Your task to perform on an android device: change the upload size in google photos Image 0: 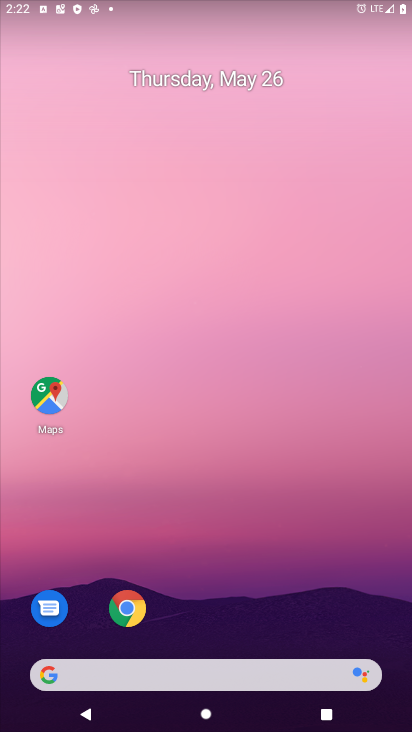
Step 0: drag from (357, 624) to (309, 75)
Your task to perform on an android device: change the upload size in google photos Image 1: 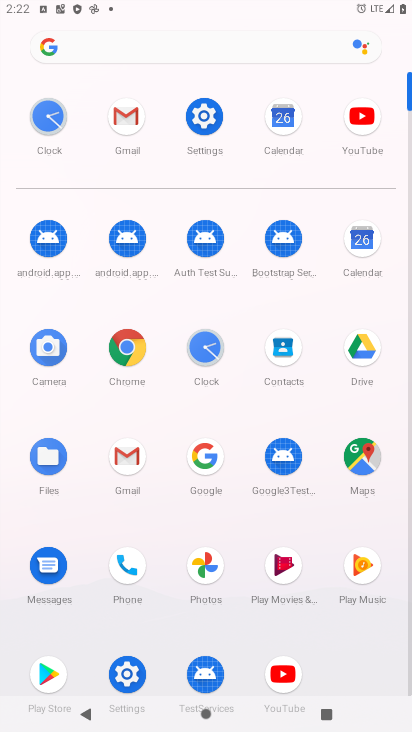
Step 1: click (208, 562)
Your task to perform on an android device: change the upload size in google photos Image 2: 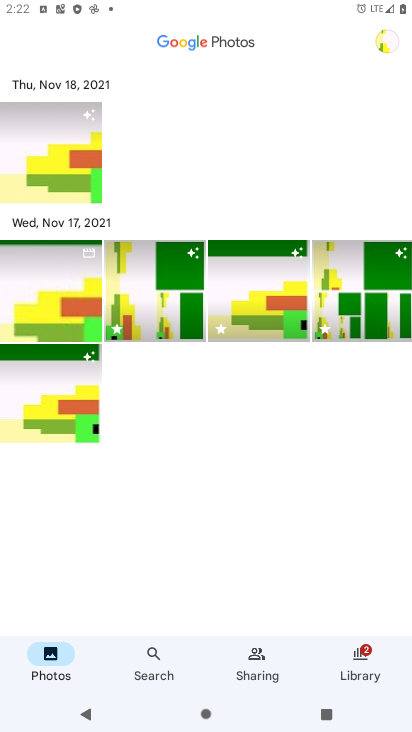
Step 2: click (384, 49)
Your task to perform on an android device: change the upload size in google photos Image 3: 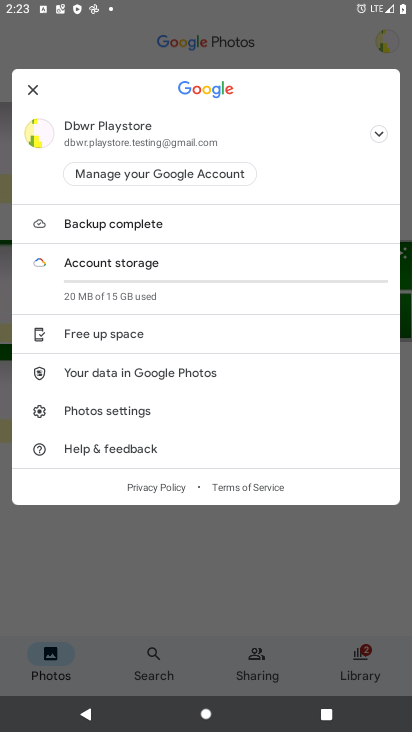
Step 3: click (99, 402)
Your task to perform on an android device: change the upload size in google photos Image 4: 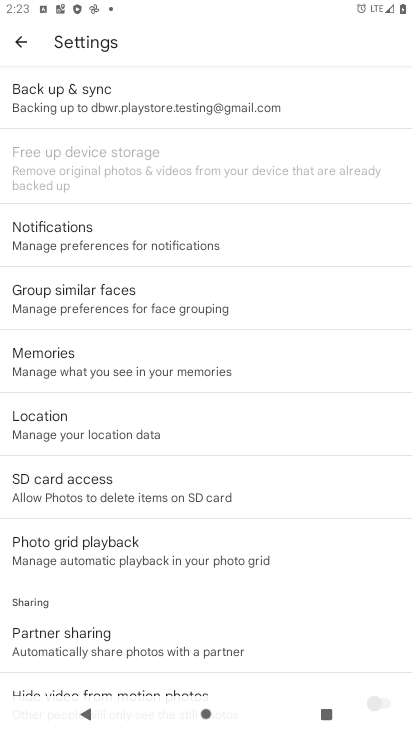
Step 4: click (99, 100)
Your task to perform on an android device: change the upload size in google photos Image 5: 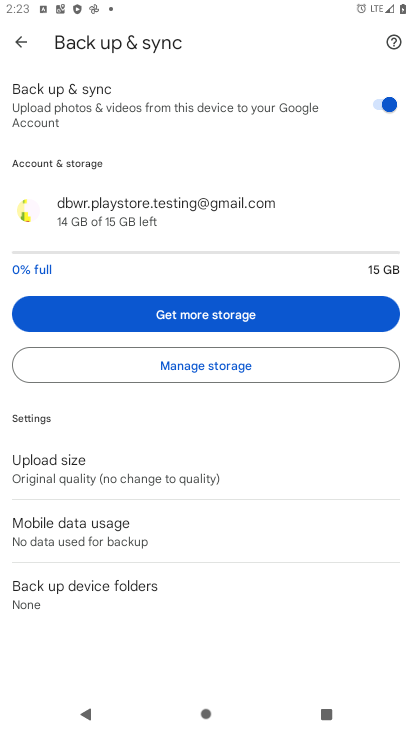
Step 5: click (96, 458)
Your task to perform on an android device: change the upload size in google photos Image 6: 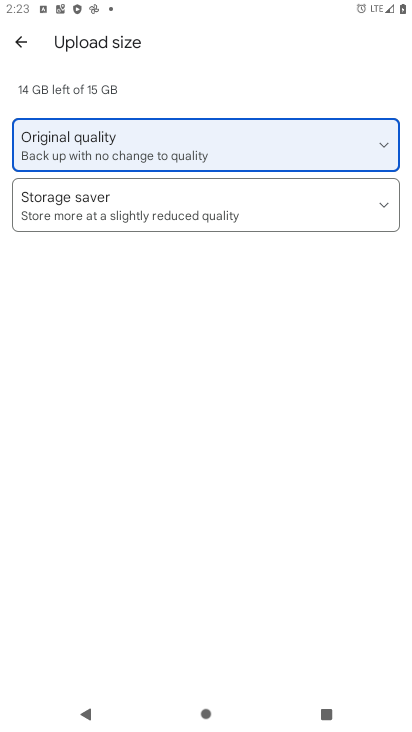
Step 6: click (111, 208)
Your task to perform on an android device: change the upload size in google photos Image 7: 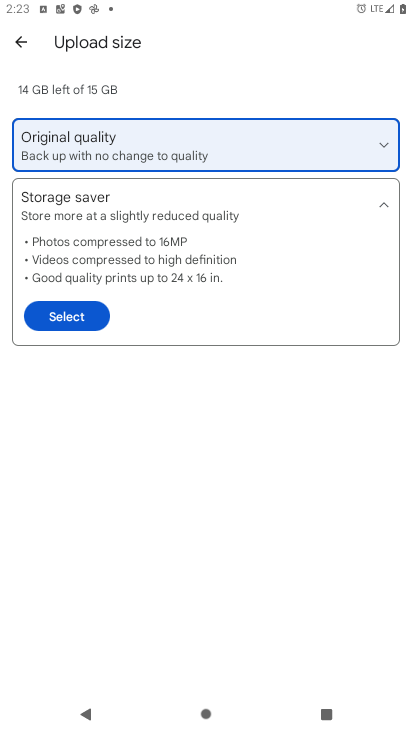
Step 7: click (74, 311)
Your task to perform on an android device: change the upload size in google photos Image 8: 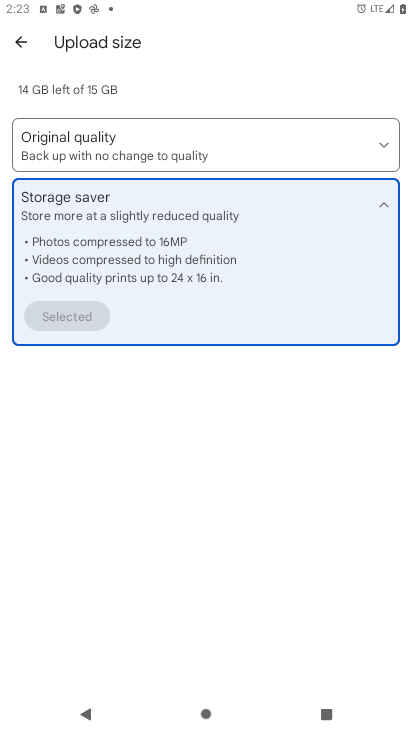
Step 8: task complete